Your task to perform on an android device: add a label to a message in the gmail app Image 0: 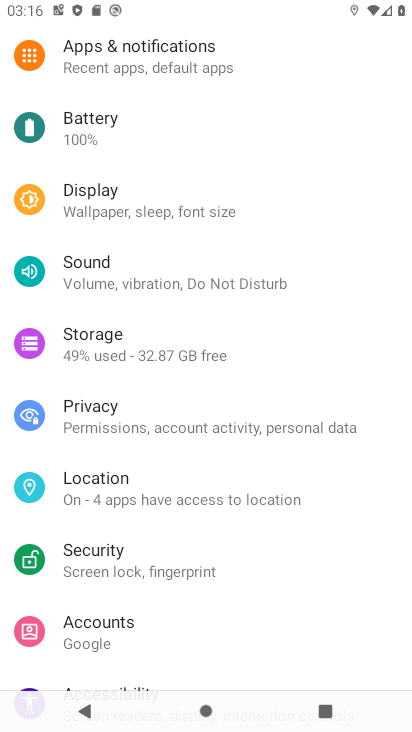
Step 0: press home button
Your task to perform on an android device: add a label to a message in the gmail app Image 1: 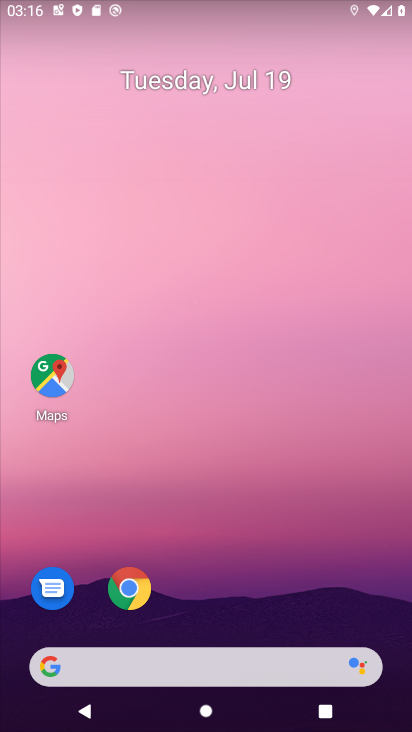
Step 1: drag from (239, 533) to (234, 89)
Your task to perform on an android device: add a label to a message in the gmail app Image 2: 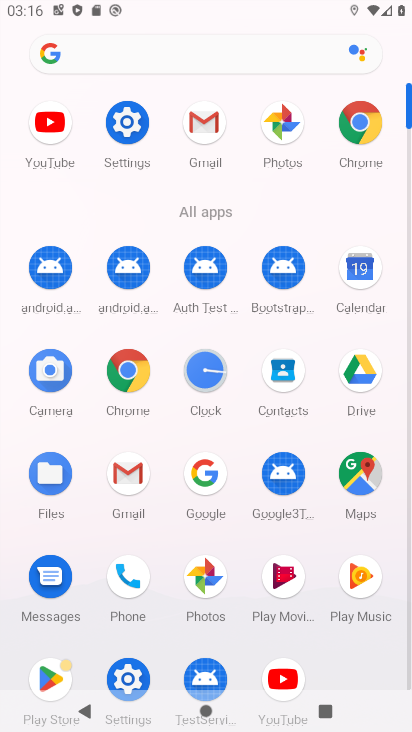
Step 2: click (209, 111)
Your task to perform on an android device: add a label to a message in the gmail app Image 3: 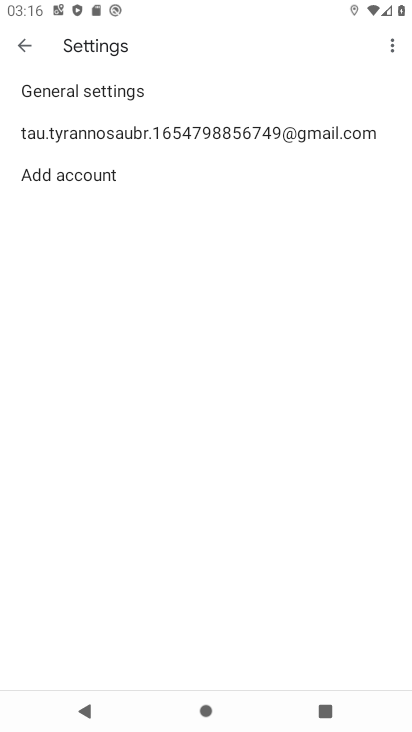
Step 3: click (22, 42)
Your task to perform on an android device: add a label to a message in the gmail app Image 4: 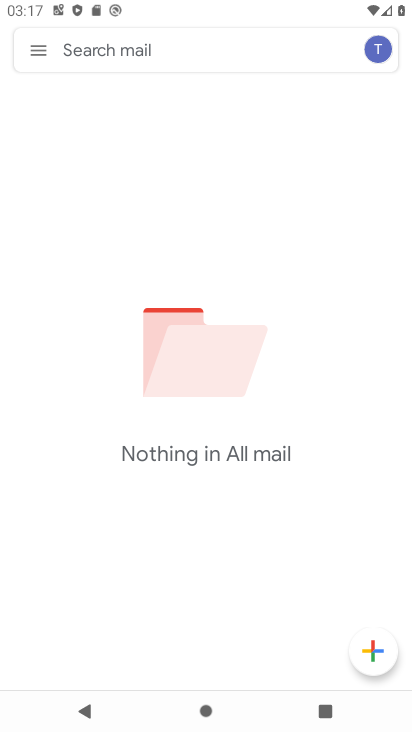
Step 4: task complete